Your task to perform on an android device: Open Youtube and go to "Your channel" Image 0: 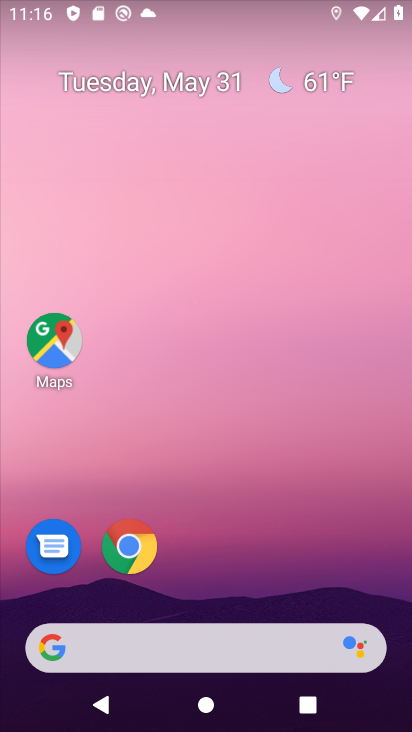
Step 0: drag from (202, 606) to (164, 6)
Your task to perform on an android device: Open Youtube and go to "Your channel" Image 1: 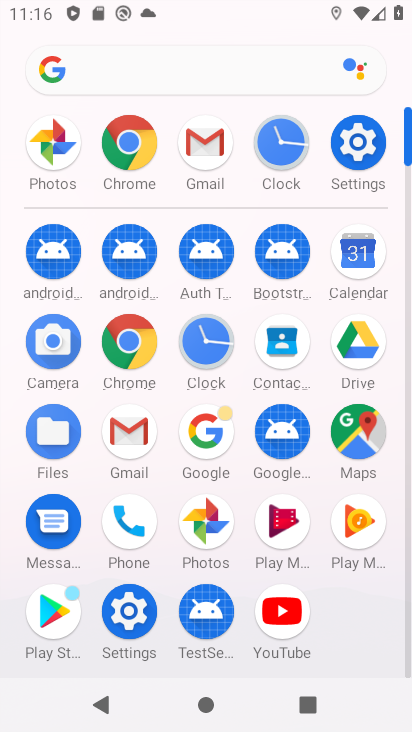
Step 1: click (287, 617)
Your task to perform on an android device: Open Youtube and go to "Your channel" Image 2: 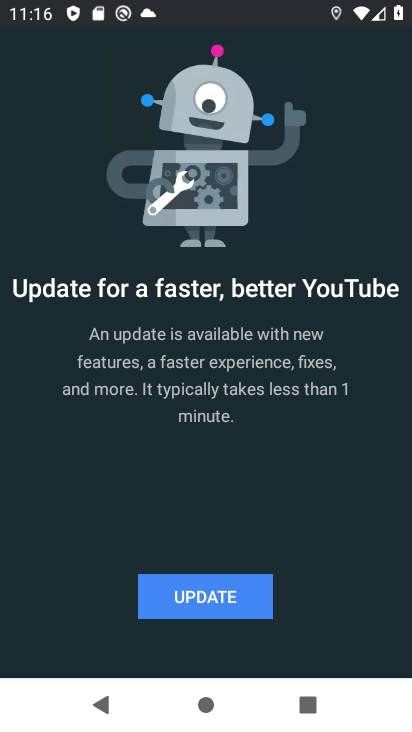
Step 2: click (188, 608)
Your task to perform on an android device: Open Youtube and go to "Your channel" Image 3: 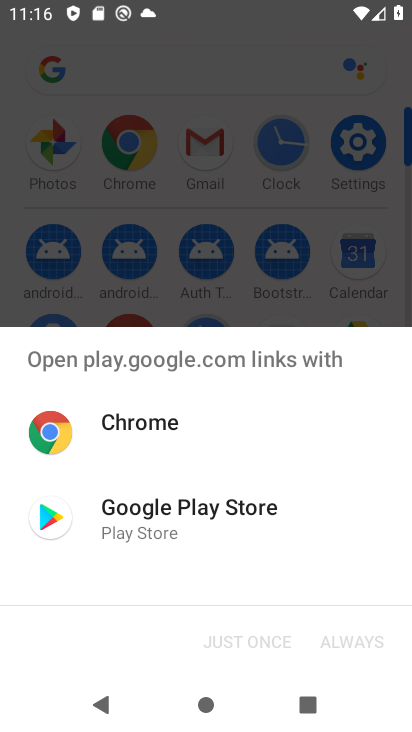
Step 3: click (214, 494)
Your task to perform on an android device: Open Youtube and go to "Your channel" Image 4: 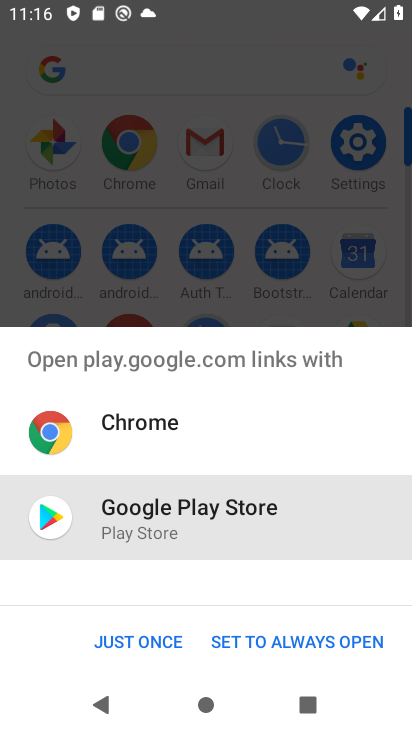
Step 4: click (147, 648)
Your task to perform on an android device: Open Youtube and go to "Your channel" Image 5: 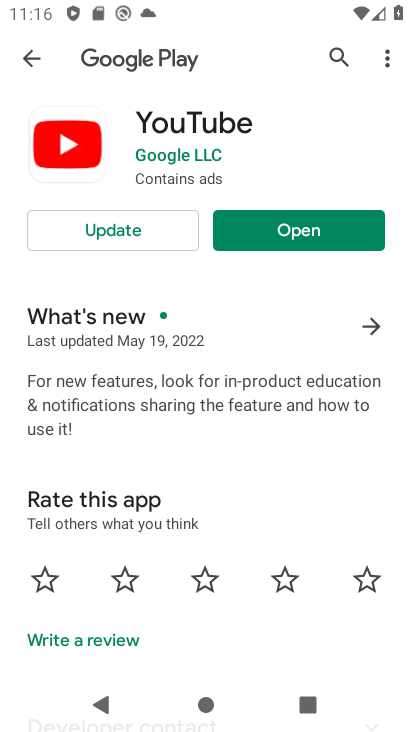
Step 5: click (141, 241)
Your task to perform on an android device: Open Youtube and go to "Your channel" Image 6: 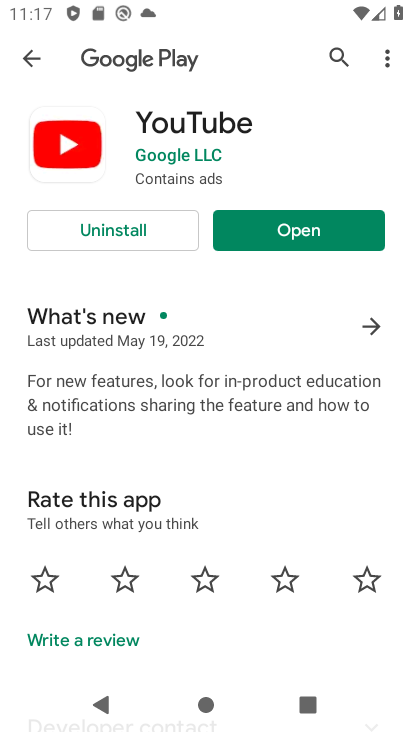
Step 6: click (340, 239)
Your task to perform on an android device: Open Youtube and go to "Your channel" Image 7: 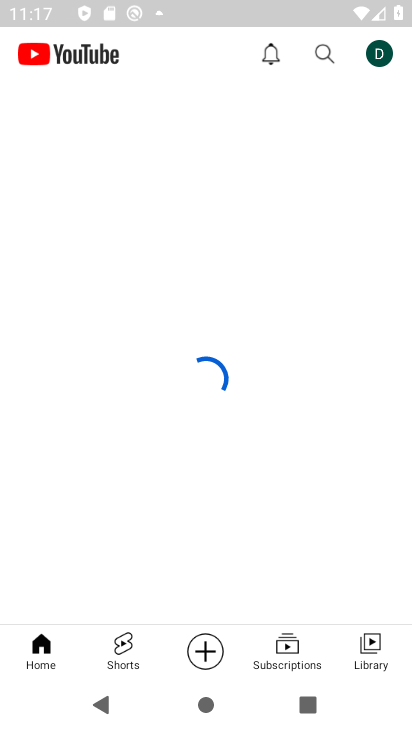
Step 7: click (392, 56)
Your task to perform on an android device: Open Youtube and go to "Your channel" Image 8: 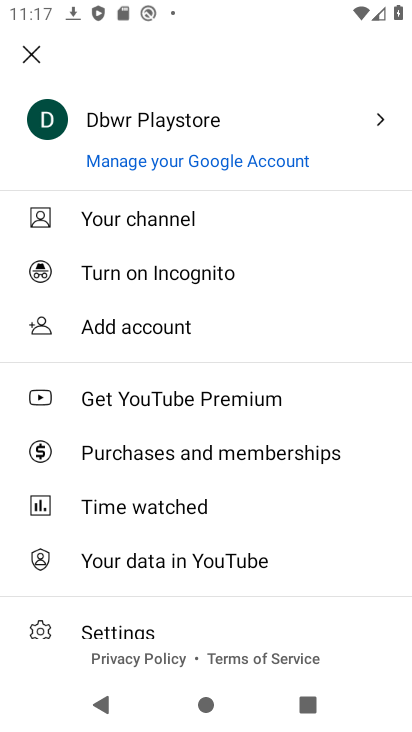
Step 8: click (116, 212)
Your task to perform on an android device: Open Youtube and go to "Your channel" Image 9: 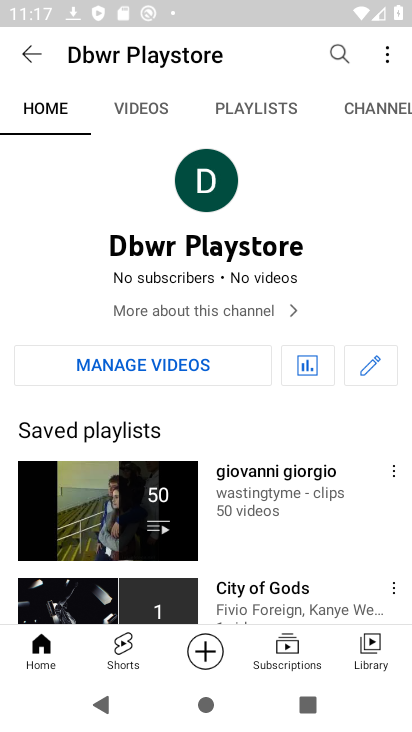
Step 9: task complete